Your task to perform on an android device: allow cookies in the chrome app Image 0: 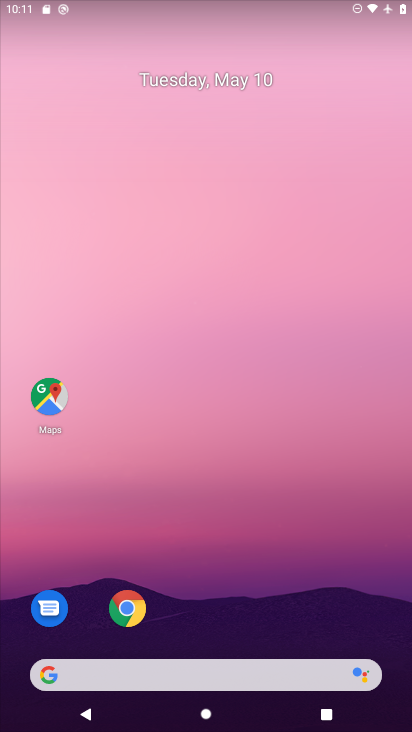
Step 0: click (247, 234)
Your task to perform on an android device: allow cookies in the chrome app Image 1: 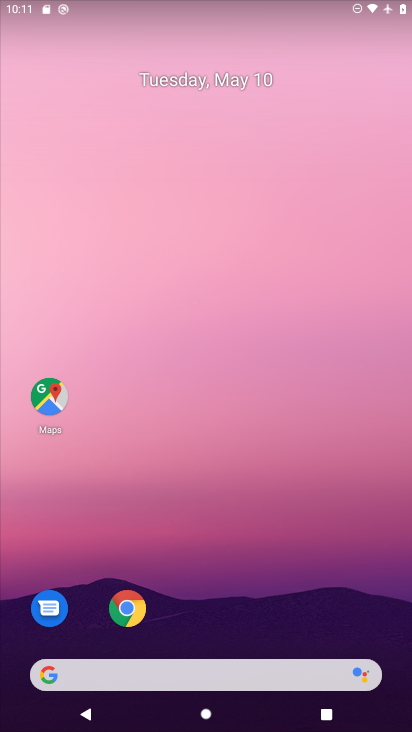
Step 1: drag from (199, 637) to (232, 217)
Your task to perform on an android device: allow cookies in the chrome app Image 2: 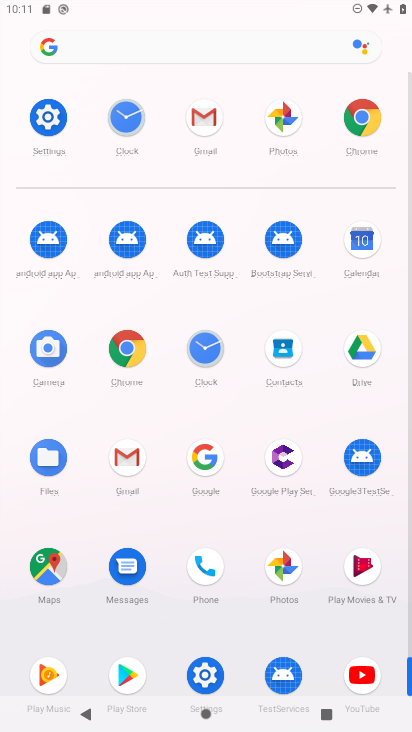
Step 2: click (365, 112)
Your task to perform on an android device: allow cookies in the chrome app Image 3: 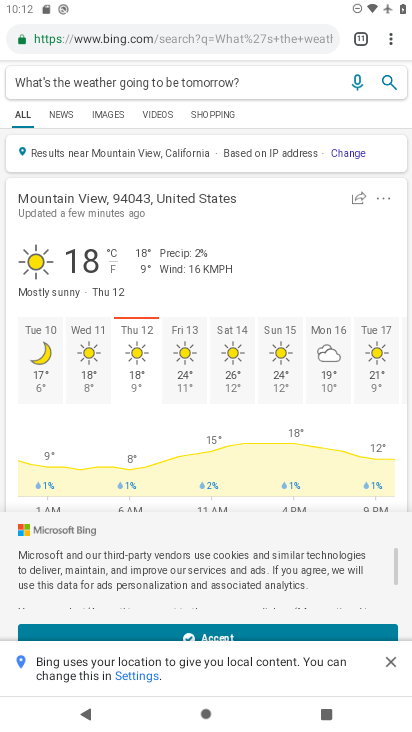
Step 3: click (377, 41)
Your task to perform on an android device: allow cookies in the chrome app Image 4: 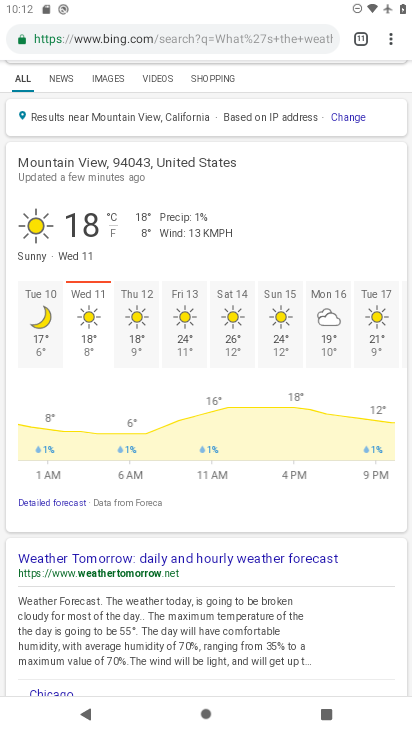
Step 4: click (381, 35)
Your task to perform on an android device: allow cookies in the chrome app Image 5: 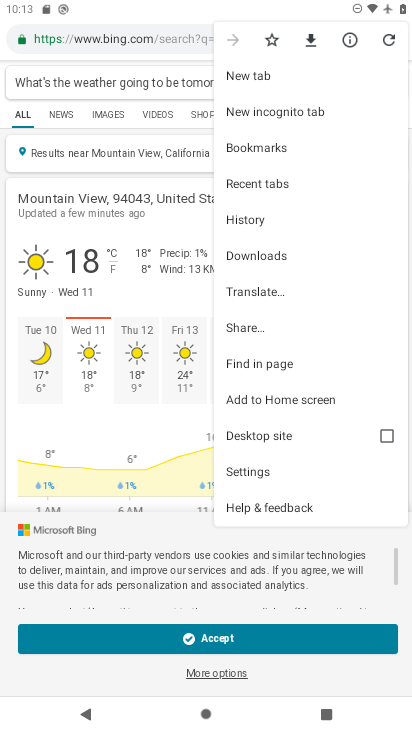
Step 5: click (257, 468)
Your task to perform on an android device: allow cookies in the chrome app Image 6: 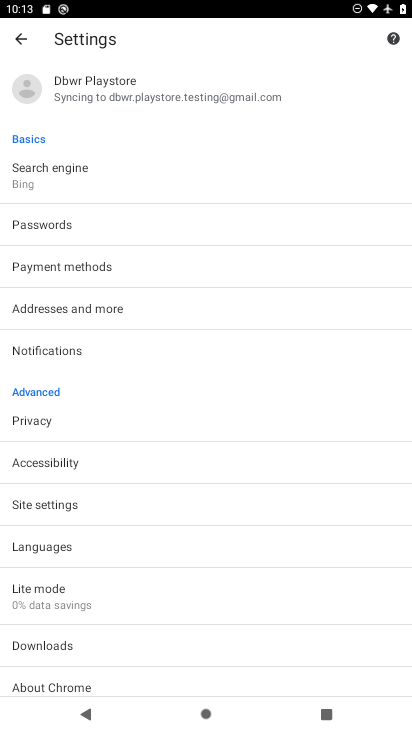
Step 6: click (81, 507)
Your task to perform on an android device: allow cookies in the chrome app Image 7: 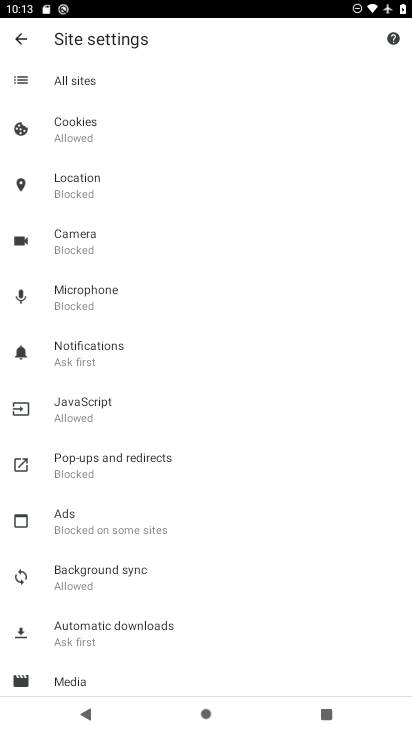
Step 7: click (87, 122)
Your task to perform on an android device: allow cookies in the chrome app Image 8: 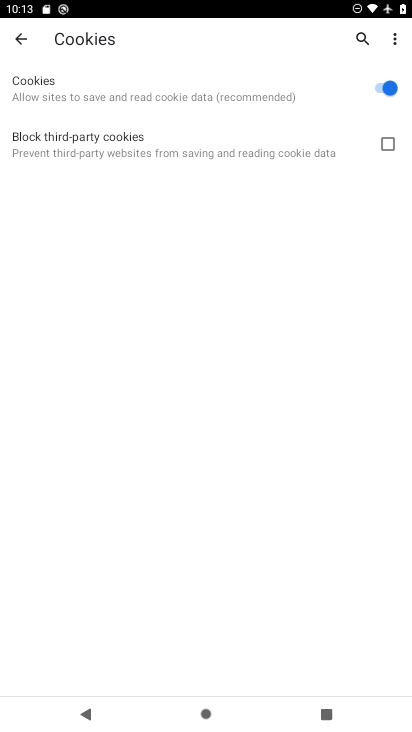
Step 8: task complete